Your task to perform on an android device: turn on location history Image 0: 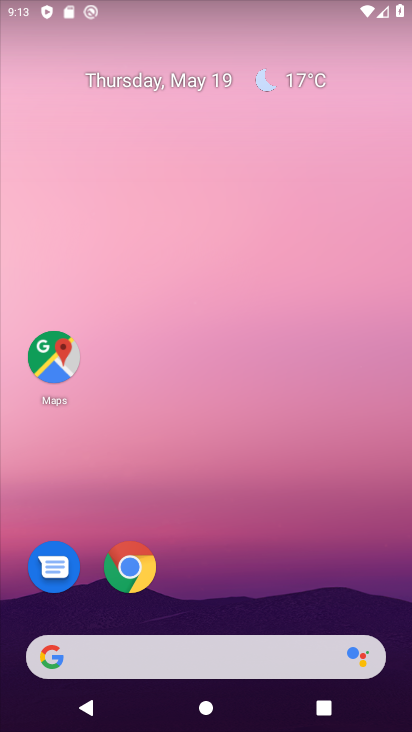
Step 0: drag from (302, 555) to (234, 4)
Your task to perform on an android device: turn on location history Image 1: 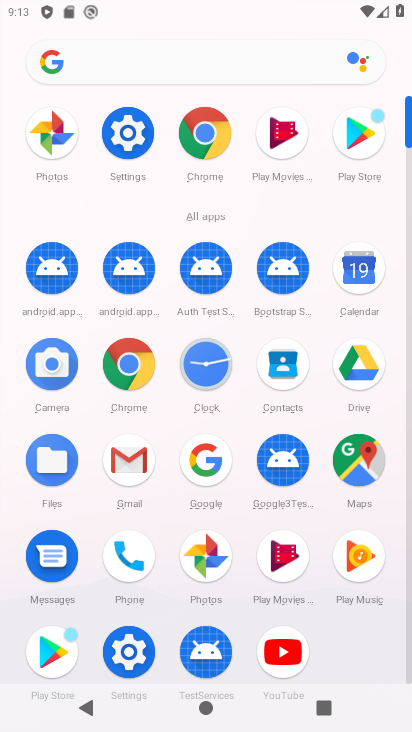
Step 1: click (140, 650)
Your task to perform on an android device: turn on location history Image 2: 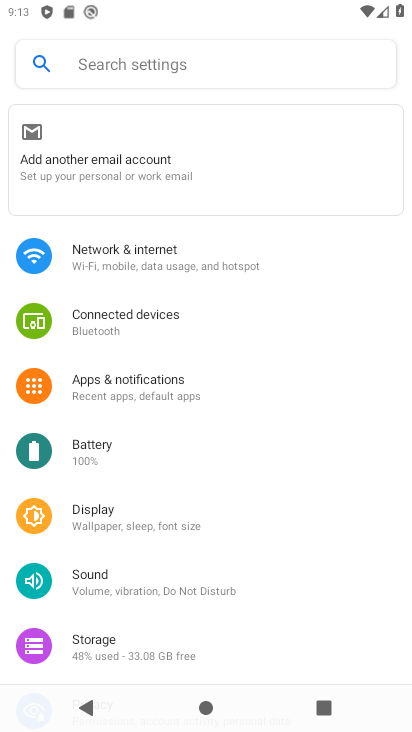
Step 2: drag from (267, 535) to (244, 268)
Your task to perform on an android device: turn on location history Image 3: 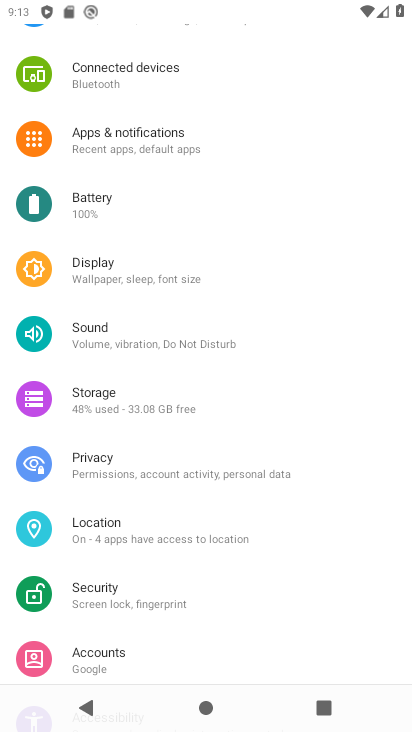
Step 3: click (187, 539)
Your task to perform on an android device: turn on location history Image 4: 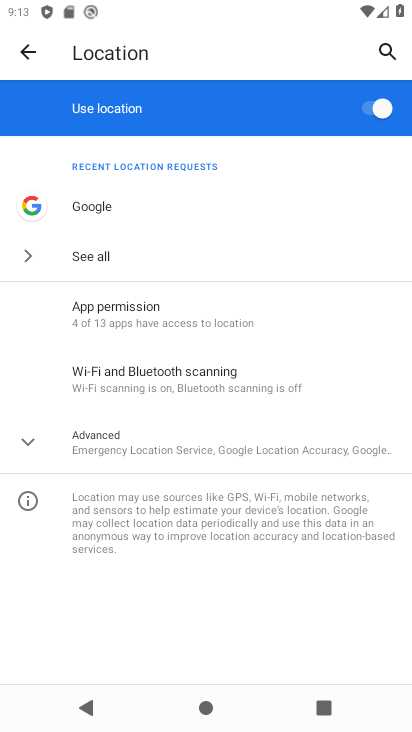
Step 4: click (96, 436)
Your task to perform on an android device: turn on location history Image 5: 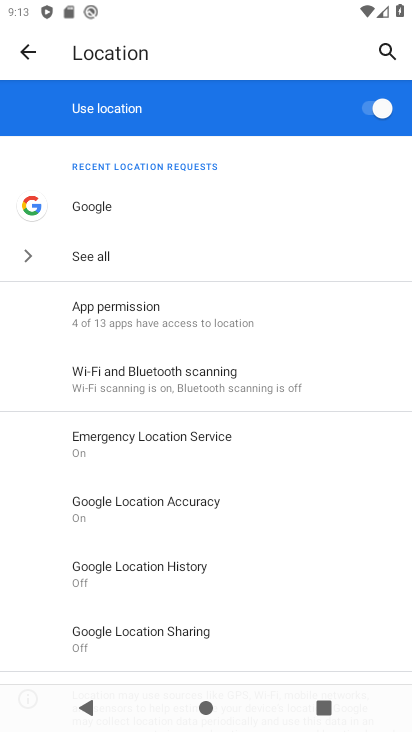
Step 5: click (151, 564)
Your task to perform on an android device: turn on location history Image 6: 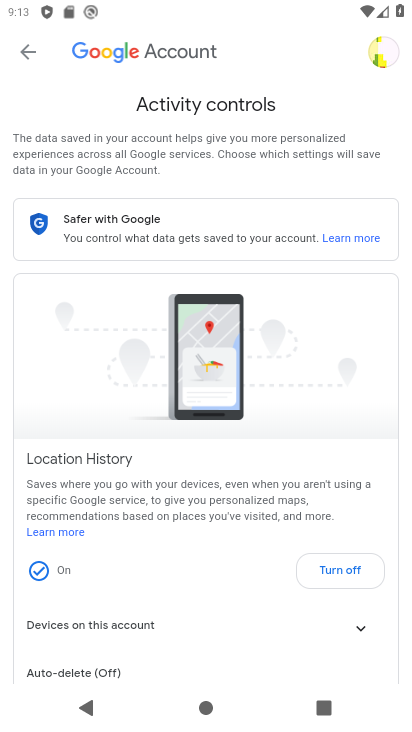
Step 6: task complete